Your task to perform on an android device: Open display settings Image 0: 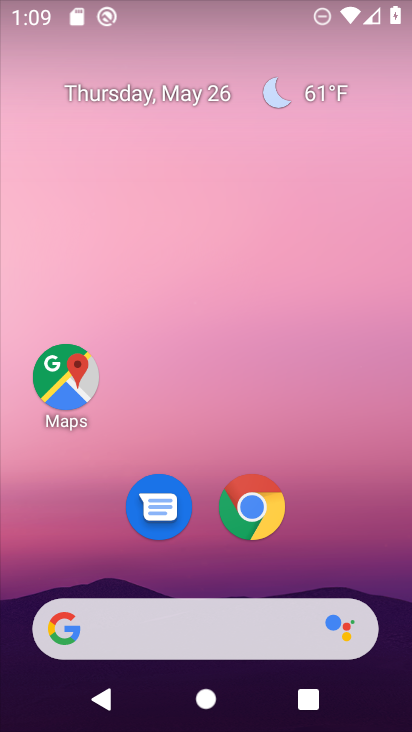
Step 0: drag from (367, 565) to (356, 21)
Your task to perform on an android device: Open display settings Image 1: 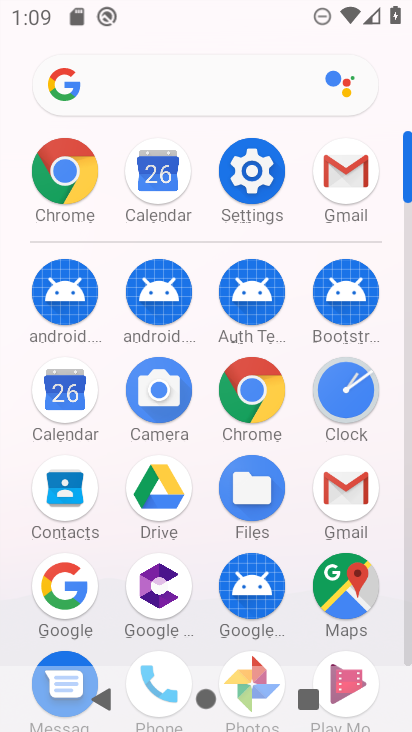
Step 1: click (265, 152)
Your task to perform on an android device: Open display settings Image 2: 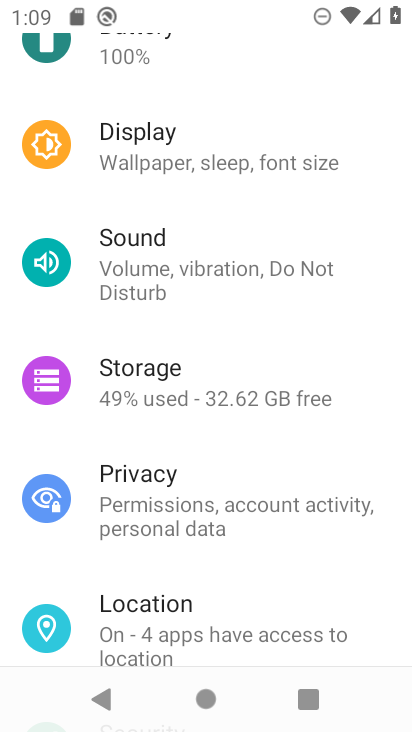
Step 2: click (225, 188)
Your task to perform on an android device: Open display settings Image 3: 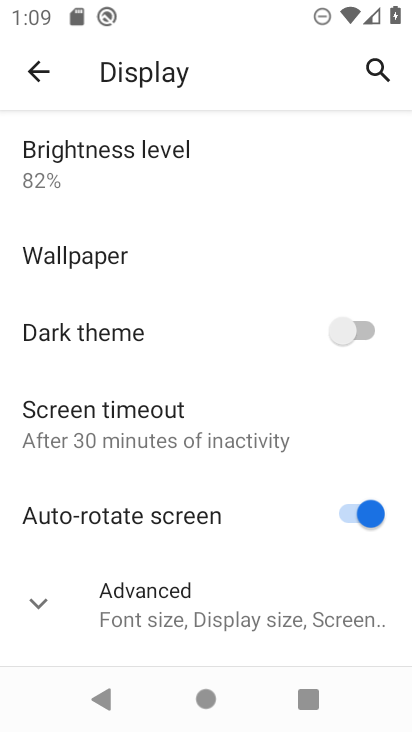
Step 3: task complete